Your task to perform on an android device: toggle javascript in the chrome app Image 0: 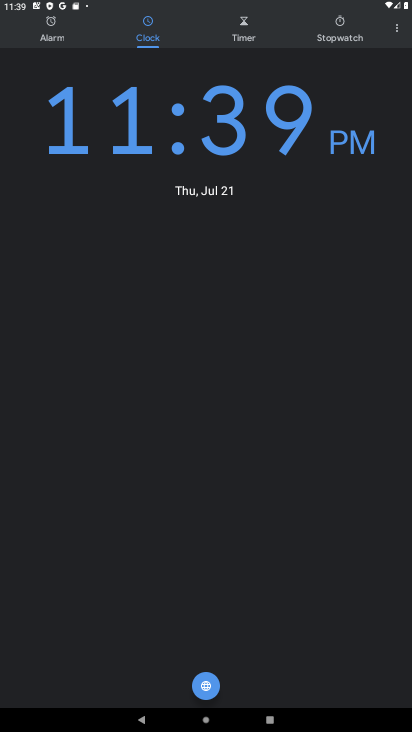
Step 0: press home button
Your task to perform on an android device: toggle javascript in the chrome app Image 1: 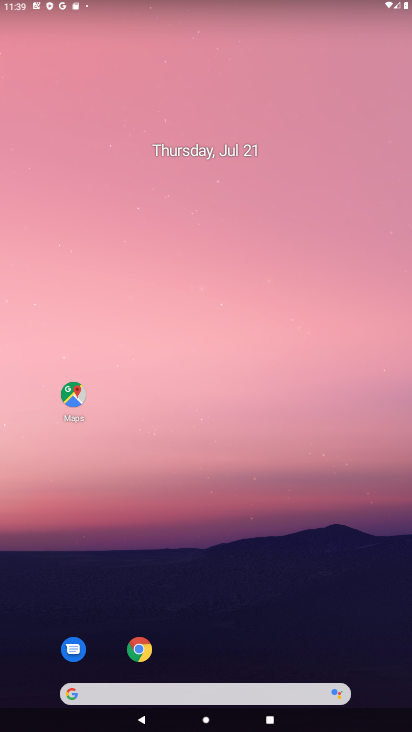
Step 1: click (140, 648)
Your task to perform on an android device: toggle javascript in the chrome app Image 2: 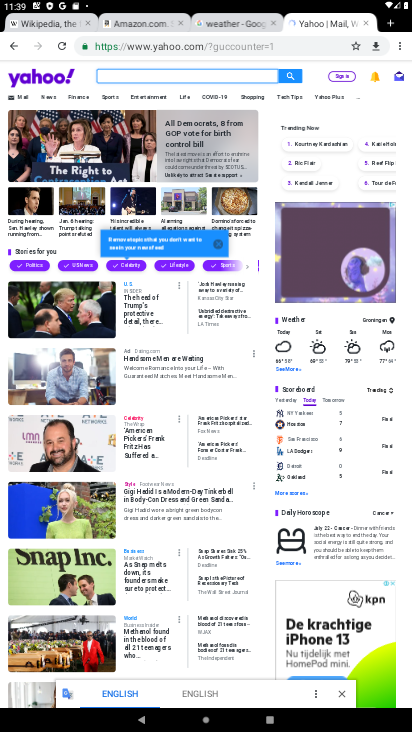
Step 2: click (399, 52)
Your task to perform on an android device: toggle javascript in the chrome app Image 3: 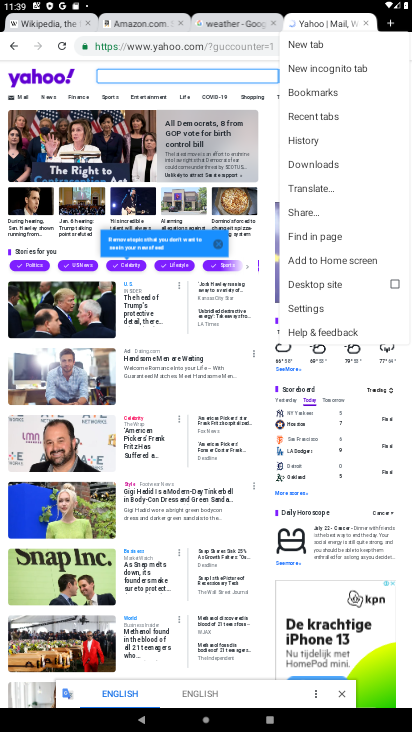
Step 3: click (307, 307)
Your task to perform on an android device: toggle javascript in the chrome app Image 4: 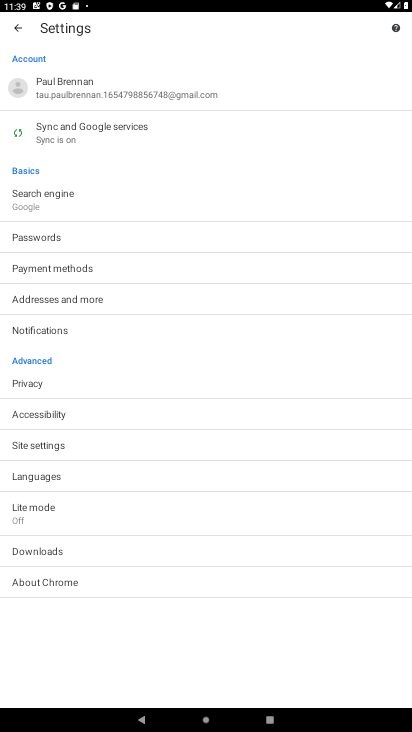
Step 4: click (26, 445)
Your task to perform on an android device: toggle javascript in the chrome app Image 5: 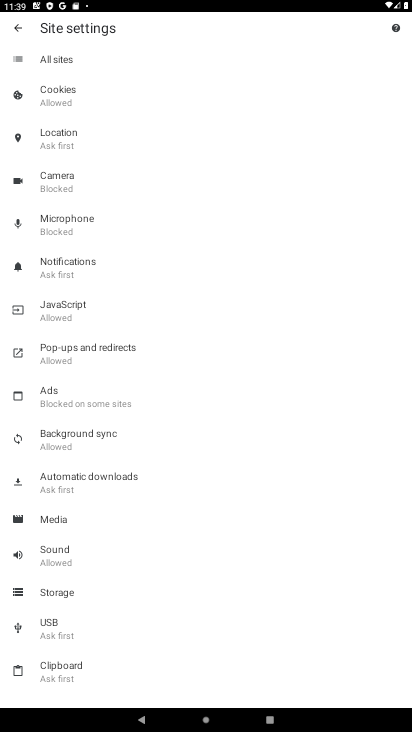
Step 5: click (50, 304)
Your task to perform on an android device: toggle javascript in the chrome app Image 6: 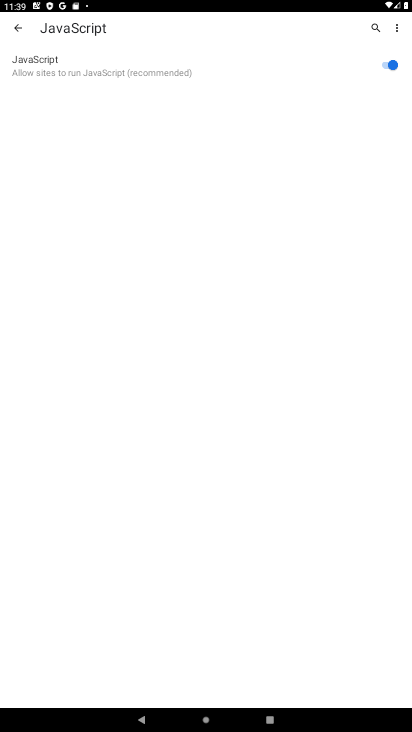
Step 6: click (386, 63)
Your task to perform on an android device: toggle javascript in the chrome app Image 7: 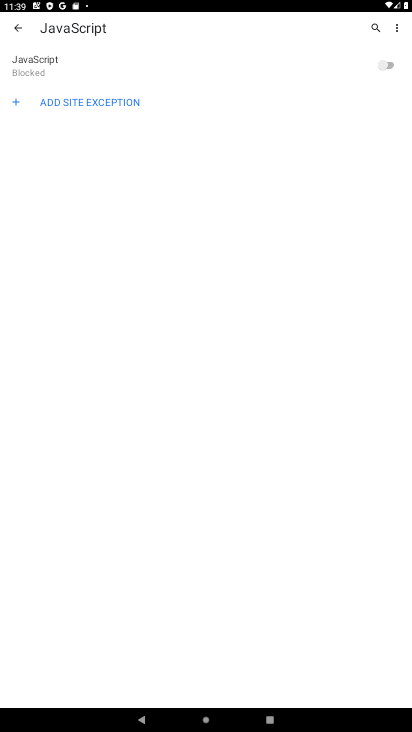
Step 7: task complete